Your task to perform on an android device: toggle translation in the chrome app Image 0: 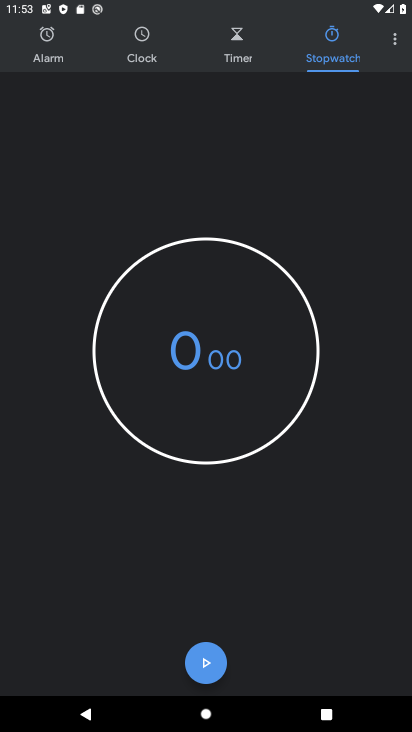
Step 0: press home button
Your task to perform on an android device: toggle translation in the chrome app Image 1: 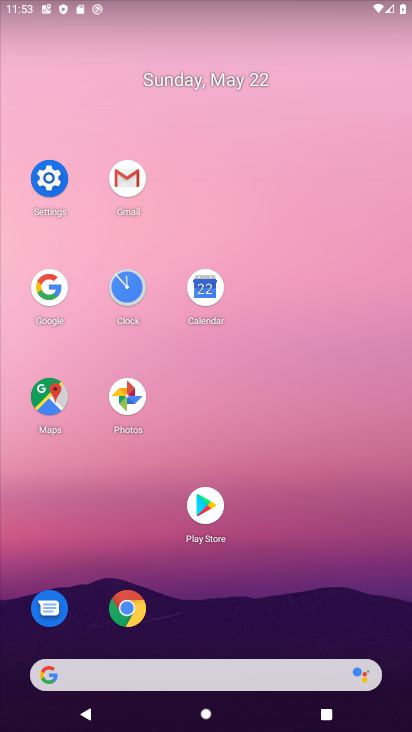
Step 1: click (128, 604)
Your task to perform on an android device: toggle translation in the chrome app Image 2: 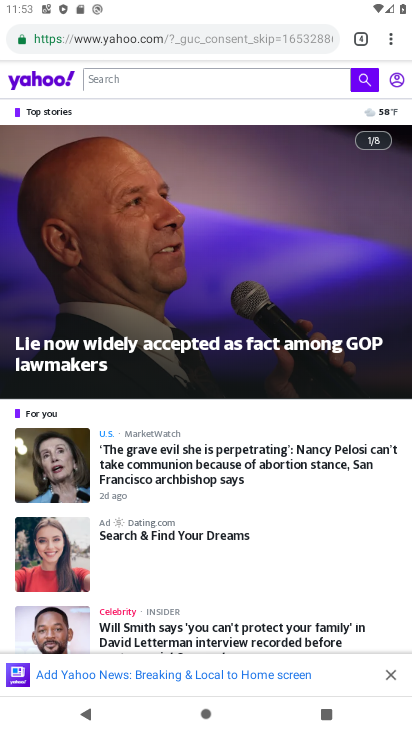
Step 2: click (395, 42)
Your task to perform on an android device: toggle translation in the chrome app Image 3: 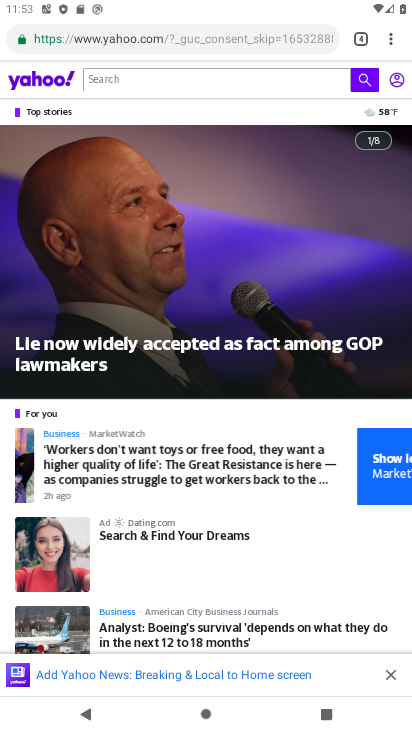
Step 3: click (393, 42)
Your task to perform on an android device: toggle translation in the chrome app Image 4: 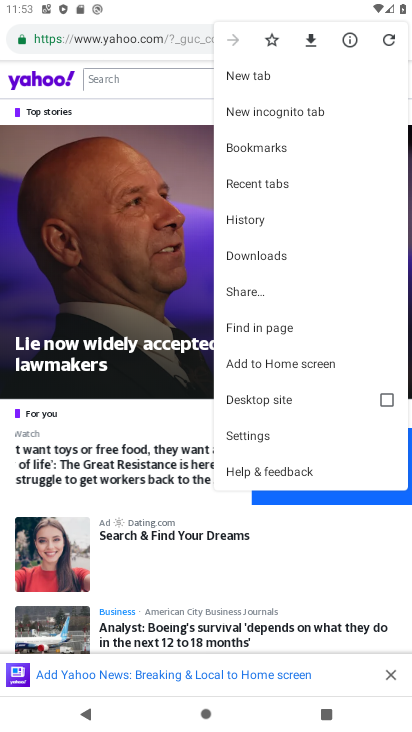
Step 4: click (242, 447)
Your task to perform on an android device: toggle translation in the chrome app Image 5: 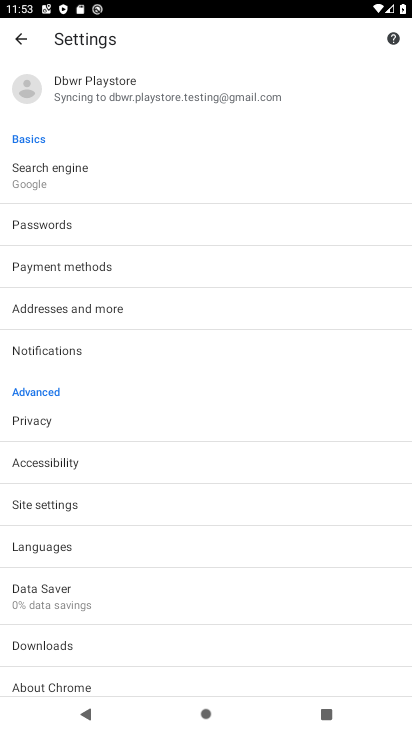
Step 5: drag from (172, 597) to (220, 224)
Your task to perform on an android device: toggle translation in the chrome app Image 6: 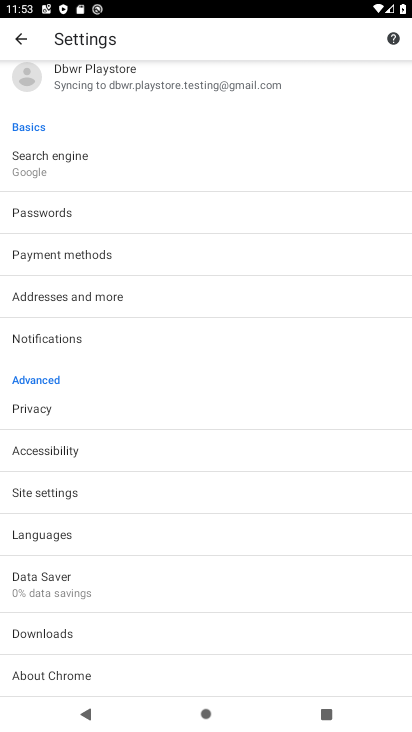
Step 6: click (144, 526)
Your task to perform on an android device: toggle translation in the chrome app Image 7: 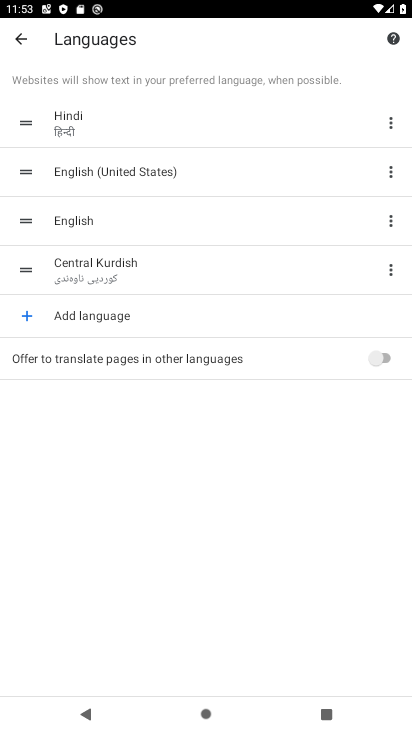
Step 7: click (373, 352)
Your task to perform on an android device: toggle translation in the chrome app Image 8: 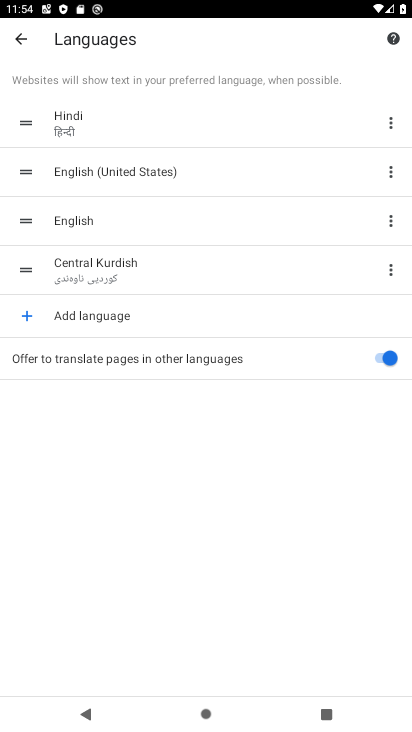
Step 8: task complete